Your task to perform on an android device: toggle location history Image 0: 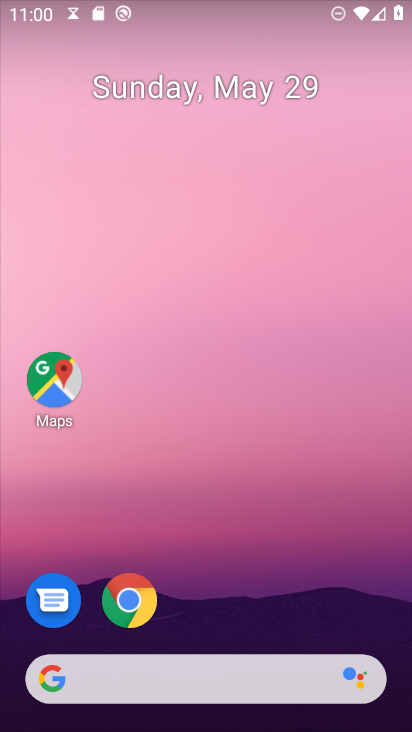
Step 0: drag from (225, 723) to (221, 51)
Your task to perform on an android device: toggle location history Image 1: 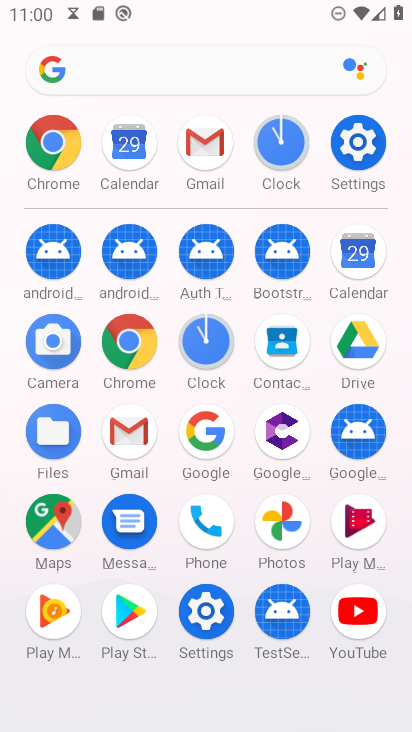
Step 1: click (358, 136)
Your task to perform on an android device: toggle location history Image 2: 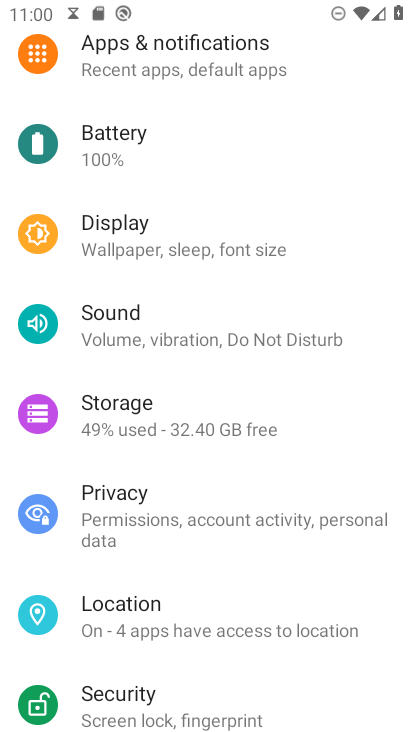
Step 2: click (126, 606)
Your task to perform on an android device: toggle location history Image 3: 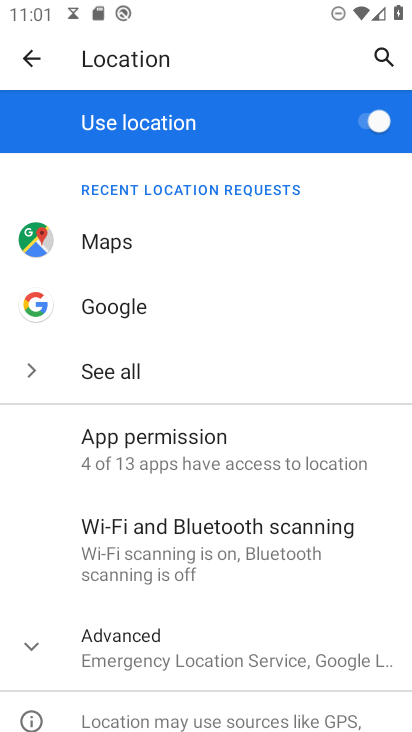
Step 3: drag from (228, 651) to (228, 458)
Your task to perform on an android device: toggle location history Image 4: 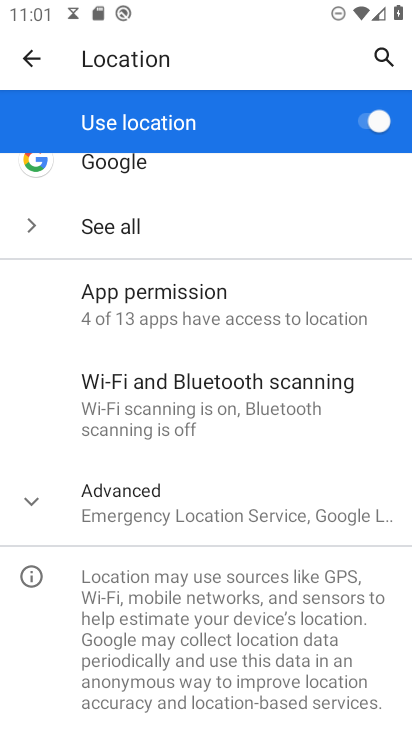
Step 4: click (142, 518)
Your task to perform on an android device: toggle location history Image 5: 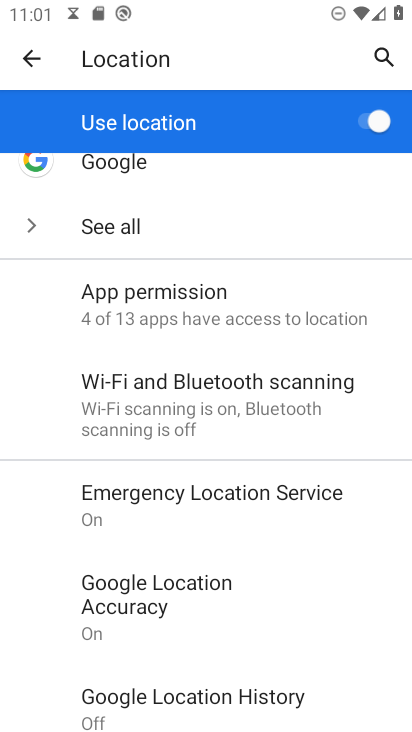
Step 5: click (167, 697)
Your task to perform on an android device: toggle location history Image 6: 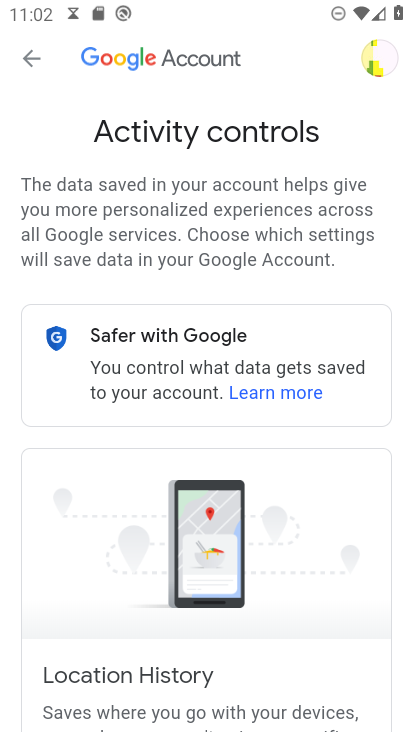
Step 6: drag from (278, 692) to (261, 261)
Your task to perform on an android device: toggle location history Image 7: 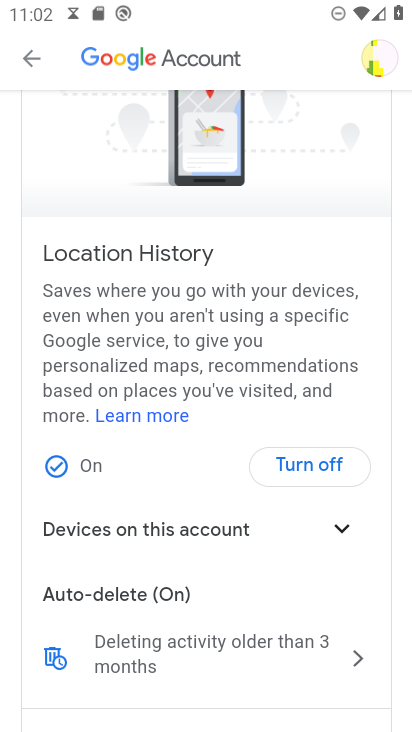
Step 7: drag from (227, 673) to (229, 558)
Your task to perform on an android device: toggle location history Image 8: 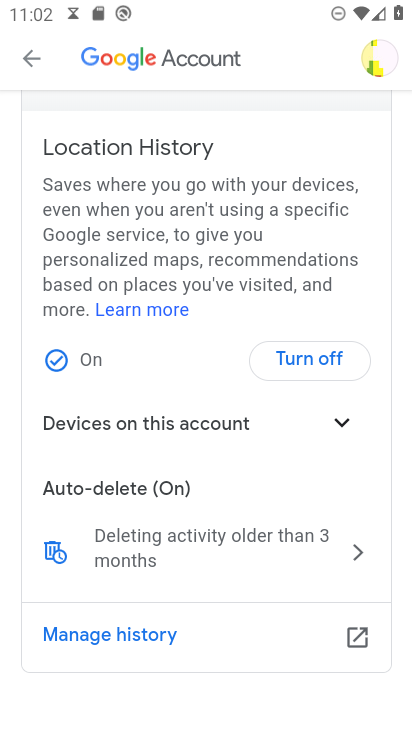
Step 8: click (314, 348)
Your task to perform on an android device: toggle location history Image 9: 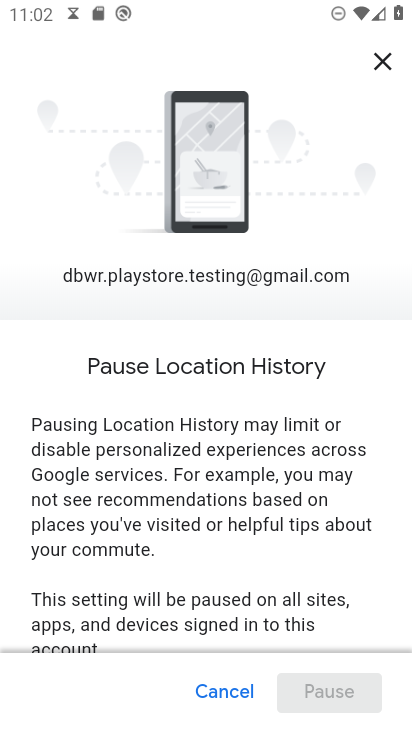
Step 9: drag from (141, 622) to (141, 292)
Your task to perform on an android device: toggle location history Image 10: 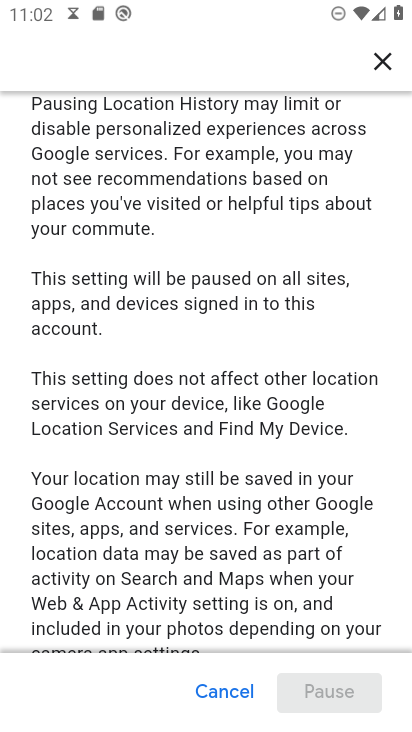
Step 10: drag from (204, 618) to (206, 241)
Your task to perform on an android device: toggle location history Image 11: 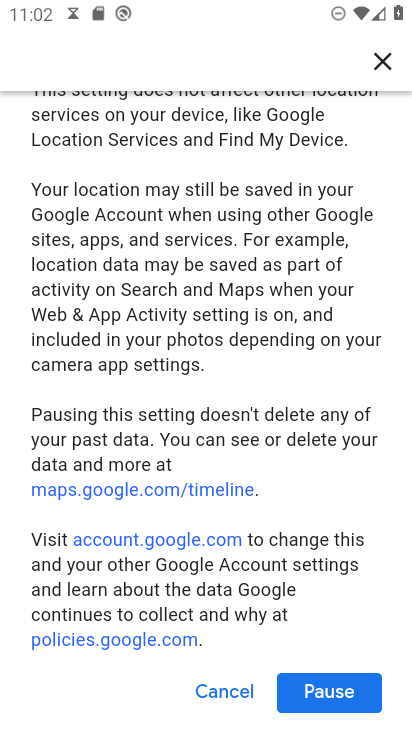
Step 11: click (323, 690)
Your task to perform on an android device: toggle location history Image 12: 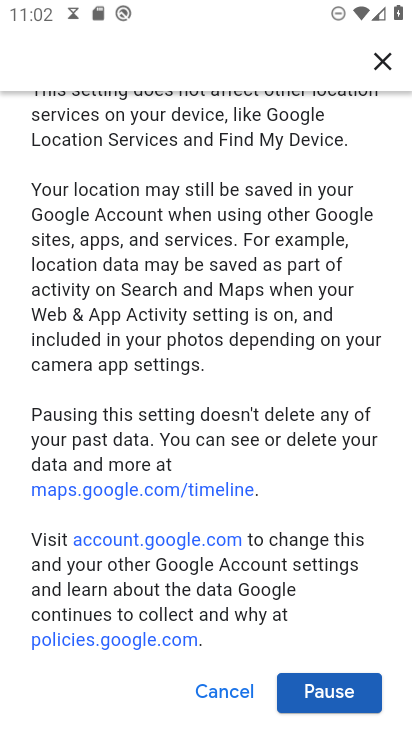
Step 12: click (323, 696)
Your task to perform on an android device: toggle location history Image 13: 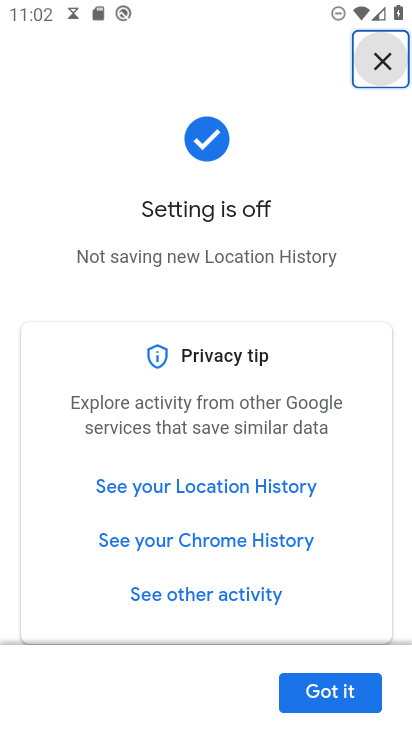
Step 13: task complete